Your task to perform on an android device: Go to Amazon Image 0: 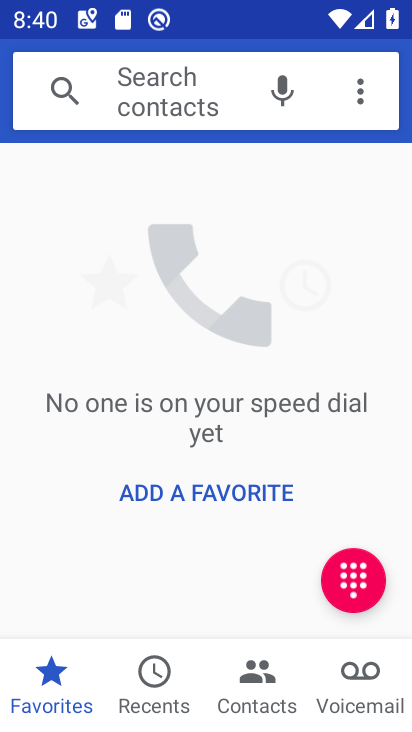
Step 0: press home button
Your task to perform on an android device: Go to Amazon Image 1: 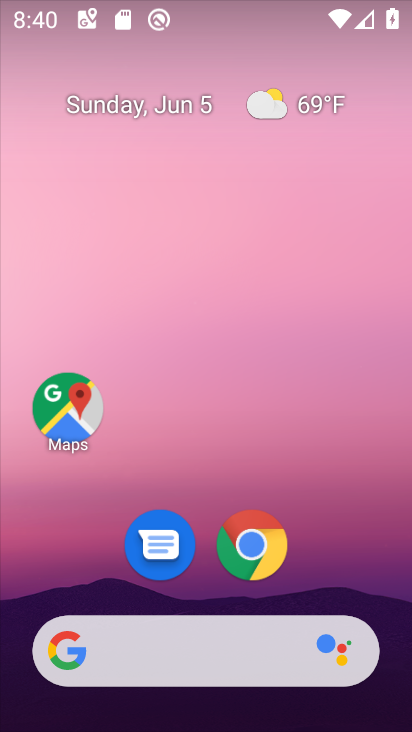
Step 1: drag from (359, 565) to (354, 184)
Your task to perform on an android device: Go to Amazon Image 2: 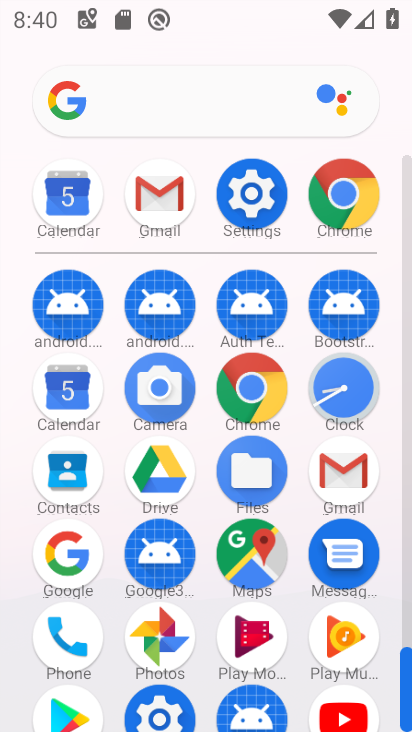
Step 2: click (259, 402)
Your task to perform on an android device: Go to Amazon Image 3: 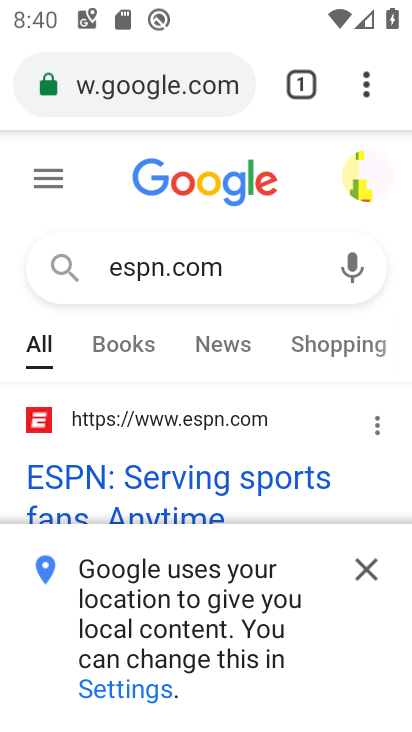
Step 3: click (216, 97)
Your task to perform on an android device: Go to Amazon Image 4: 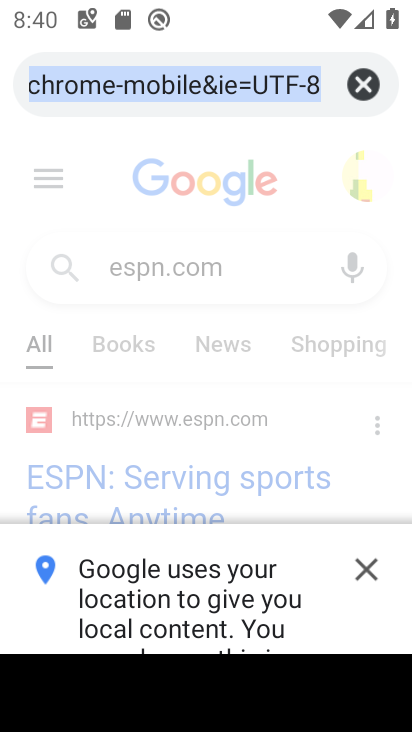
Step 4: click (366, 84)
Your task to perform on an android device: Go to Amazon Image 5: 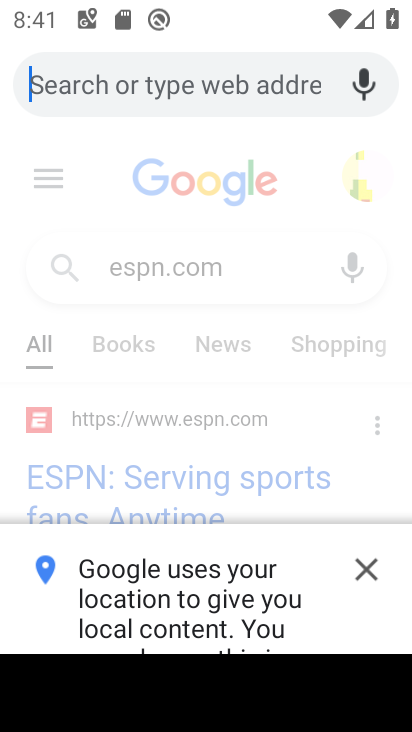
Step 5: type "amazon"
Your task to perform on an android device: Go to Amazon Image 6: 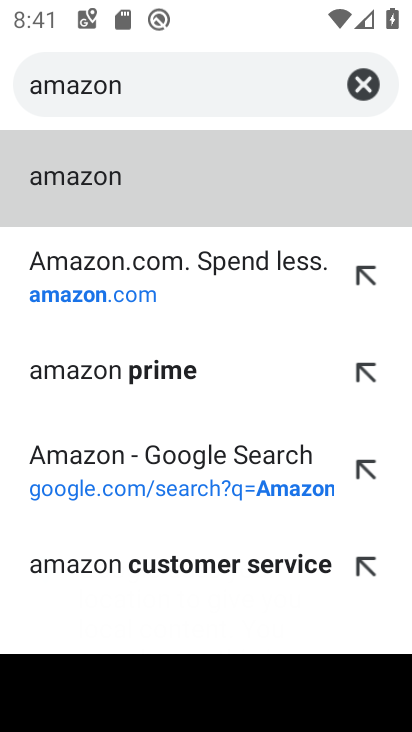
Step 6: click (114, 176)
Your task to perform on an android device: Go to Amazon Image 7: 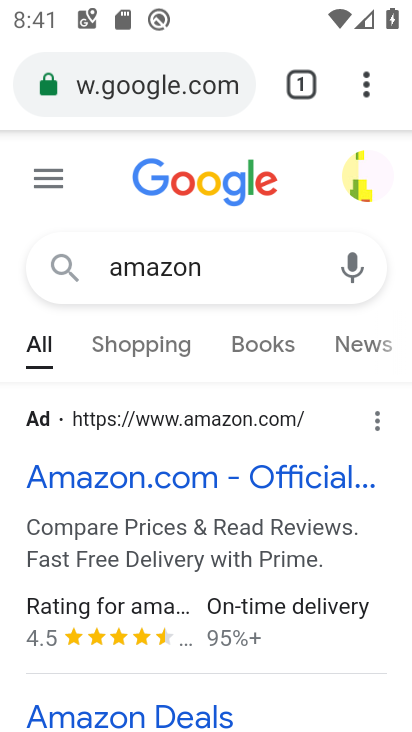
Step 7: click (246, 483)
Your task to perform on an android device: Go to Amazon Image 8: 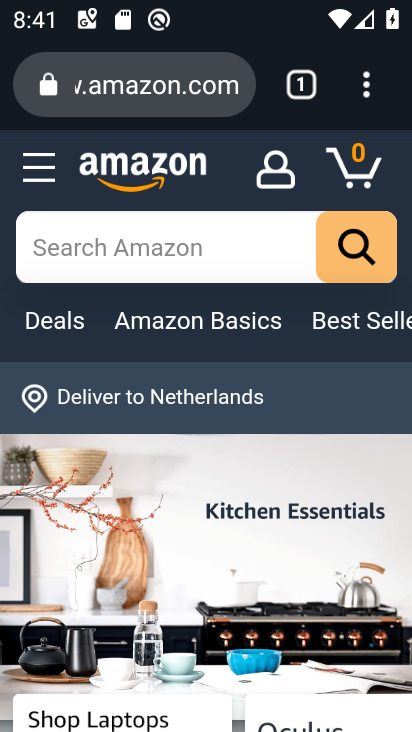
Step 8: task complete